Your task to perform on an android device: Open the map Image 0: 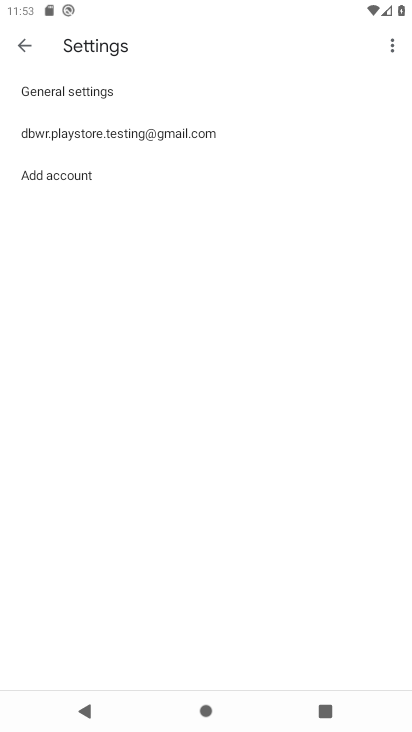
Step 0: press home button
Your task to perform on an android device: Open the map Image 1: 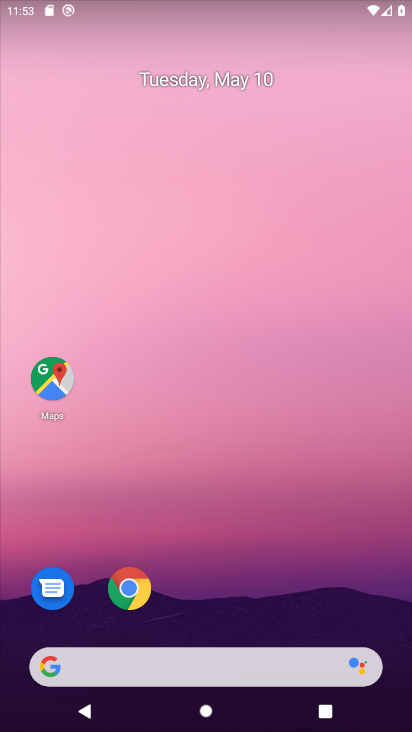
Step 1: click (52, 369)
Your task to perform on an android device: Open the map Image 2: 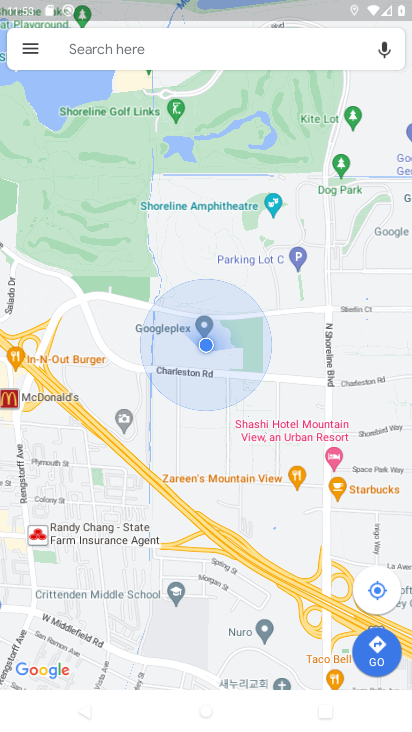
Step 2: task complete